Your task to perform on an android device: Open accessibility settings Image 0: 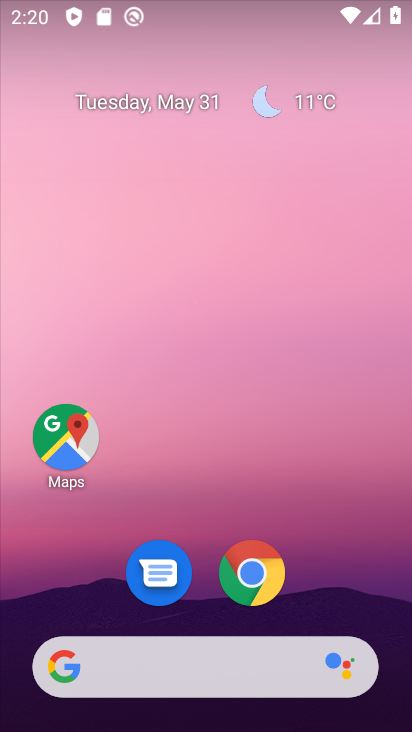
Step 0: drag from (362, 595) to (302, 0)
Your task to perform on an android device: Open accessibility settings Image 1: 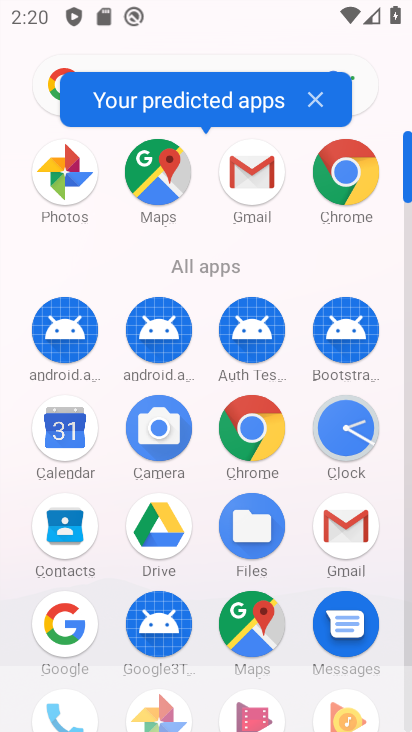
Step 1: click (407, 655)
Your task to perform on an android device: Open accessibility settings Image 2: 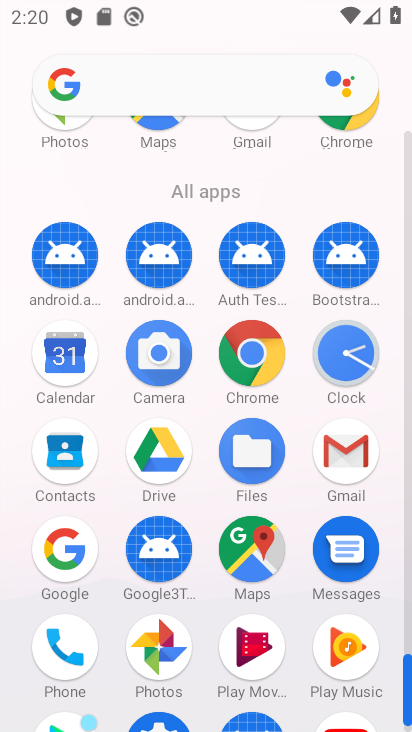
Step 2: drag from (394, 642) to (390, 376)
Your task to perform on an android device: Open accessibility settings Image 3: 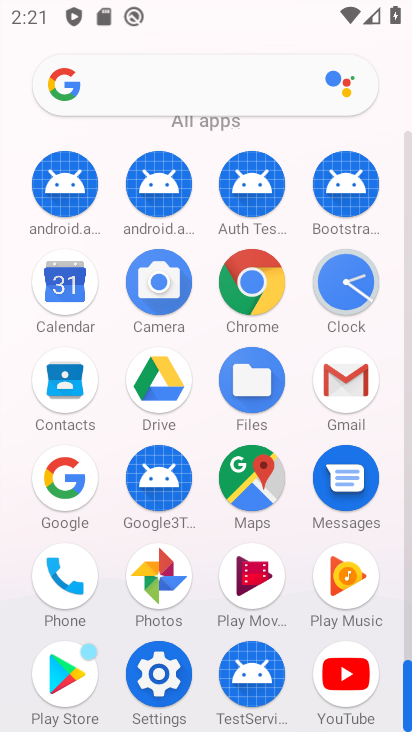
Step 3: click (164, 681)
Your task to perform on an android device: Open accessibility settings Image 4: 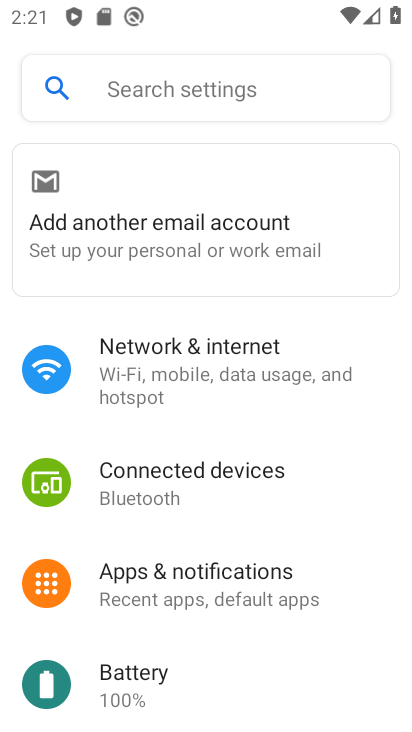
Step 4: drag from (270, 665) to (233, 217)
Your task to perform on an android device: Open accessibility settings Image 5: 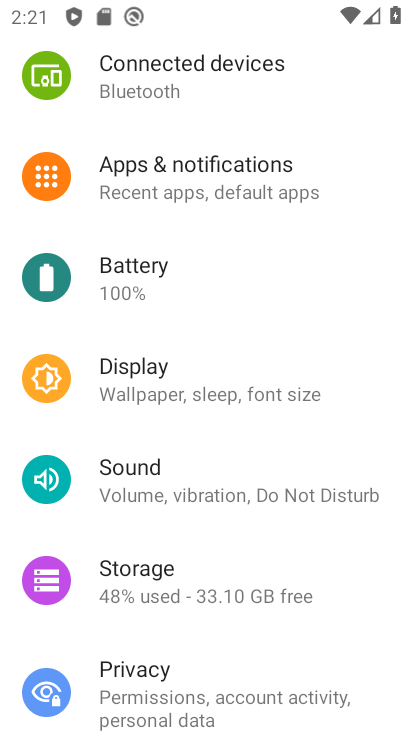
Step 5: drag from (262, 698) to (224, 65)
Your task to perform on an android device: Open accessibility settings Image 6: 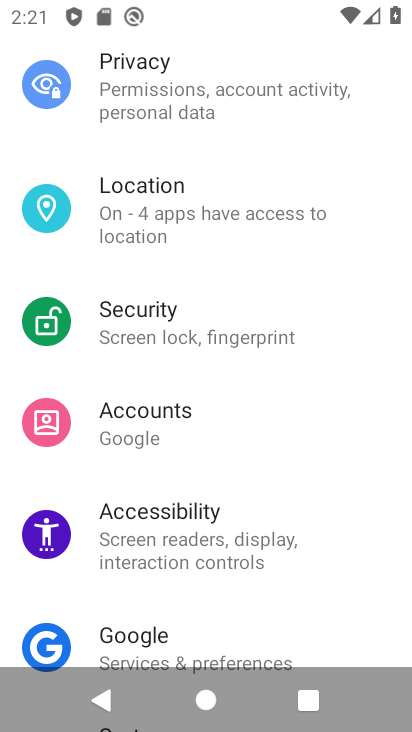
Step 6: click (244, 521)
Your task to perform on an android device: Open accessibility settings Image 7: 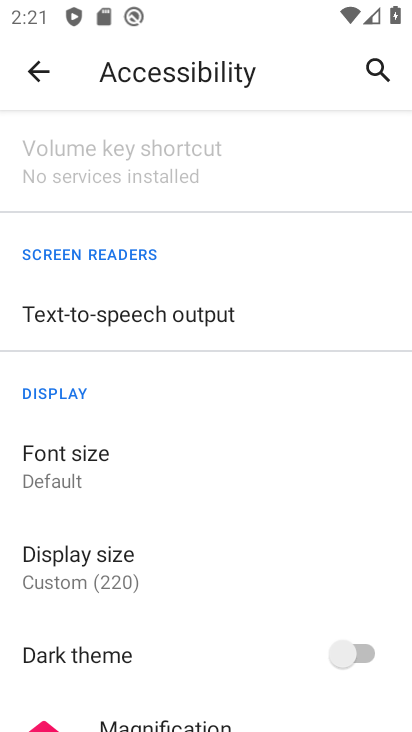
Step 7: task complete